Your task to perform on an android device: turn off location history Image 0: 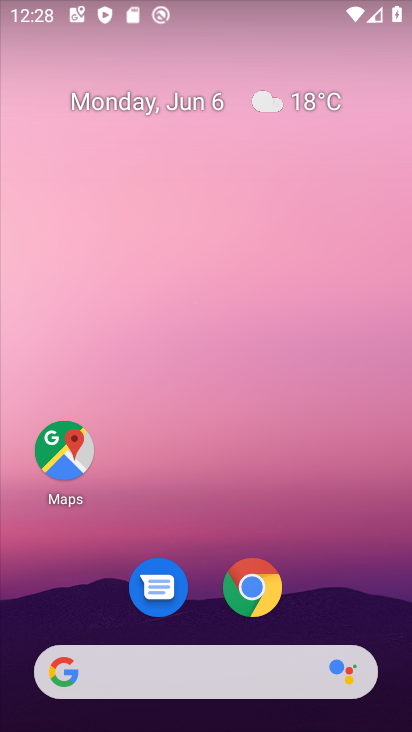
Step 0: press home button
Your task to perform on an android device: turn off location history Image 1: 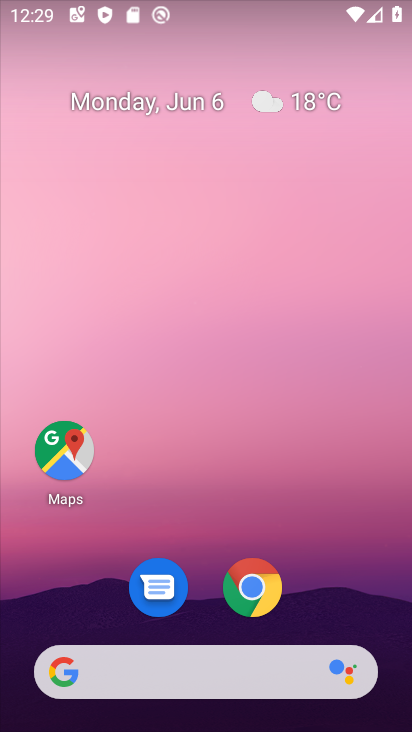
Step 1: drag from (356, 584) to (379, 119)
Your task to perform on an android device: turn off location history Image 2: 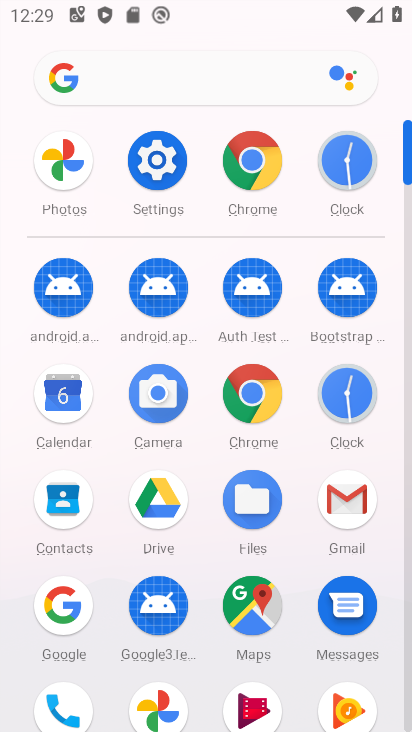
Step 2: click (163, 195)
Your task to perform on an android device: turn off location history Image 3: 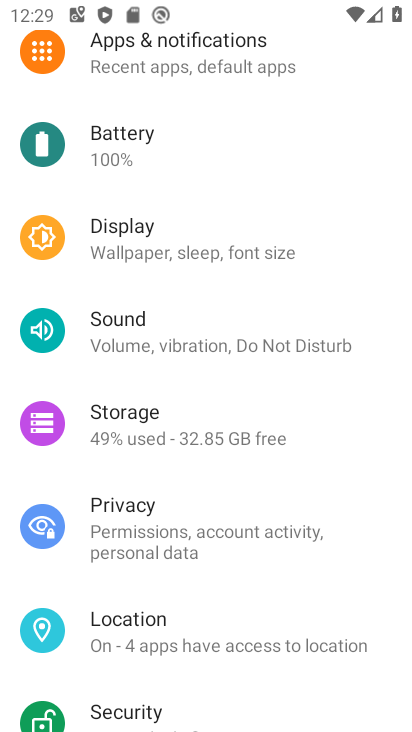
Step 3: drag from (263, 669) to (351, 365)
Your task to perform on an android device: turn off location history Image 4: 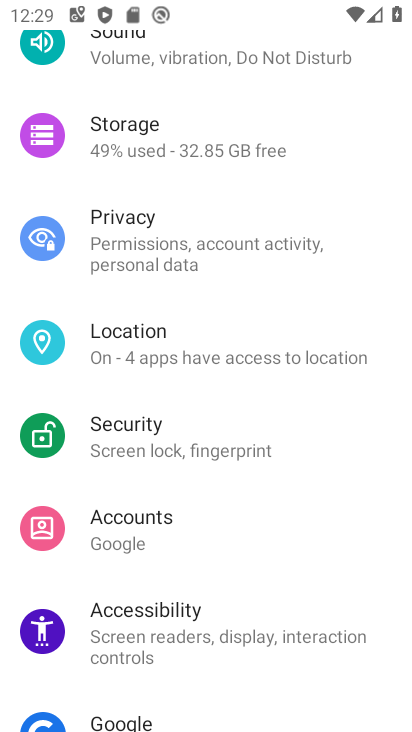
Step 4: click (258, 350)
Your task to perform on an android device: turn off location history Image 5: 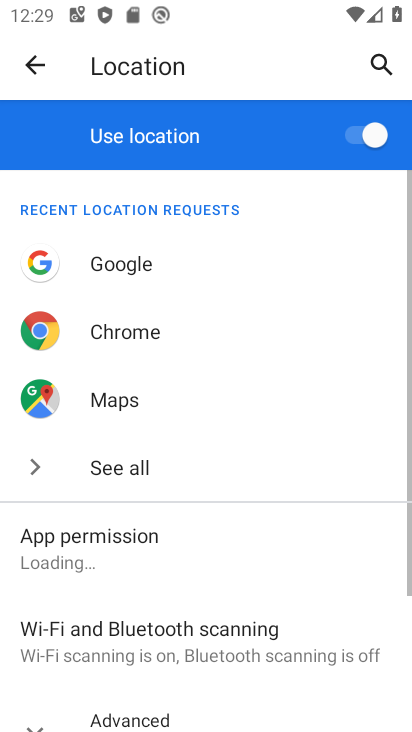
Step 5: drag from (257, 560) to (303, 262)
Your task to perform on an android device: turn off location history Image 6: 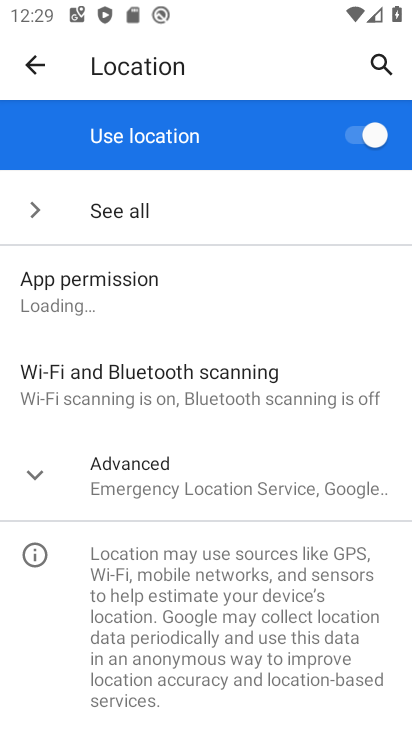
Step 6: click (217, 475)
Your task to perform on an android device: turn off location history Image 7: 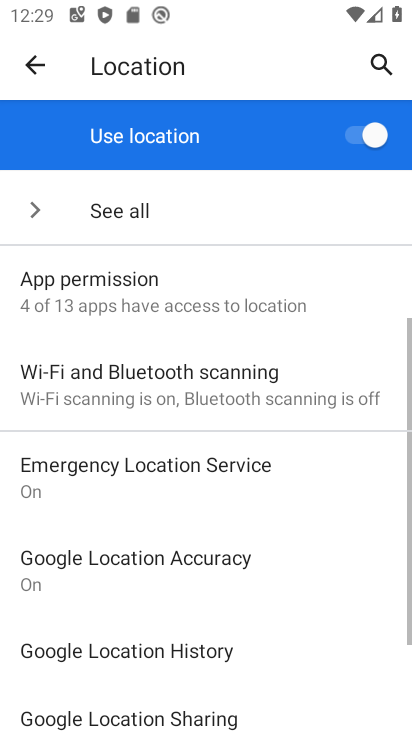
Step 7: drag from (206, 632) to (266, 388)
Your task to perform on an android device: turn off location history Image 8: 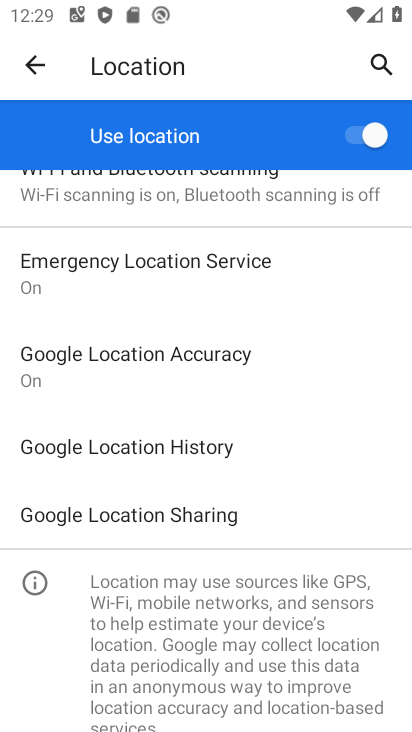
Step 8: click (163, 450)
Your task to perform on an android device: turn off location history Image 9: 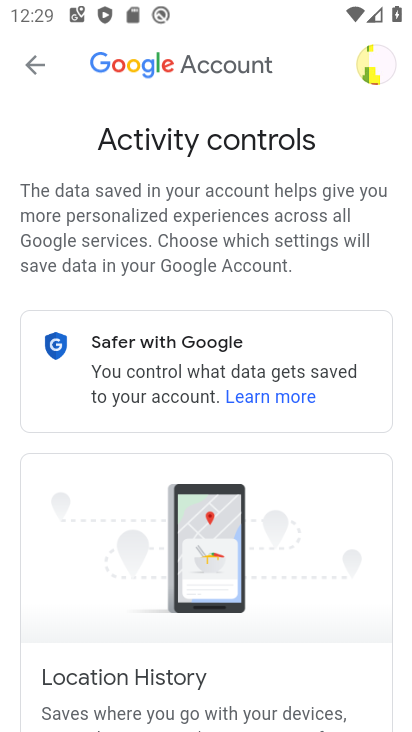
Step 9: drag from (110, 615) to (174, 235)
Your task to perform on an android device: turn off location history Image 10: 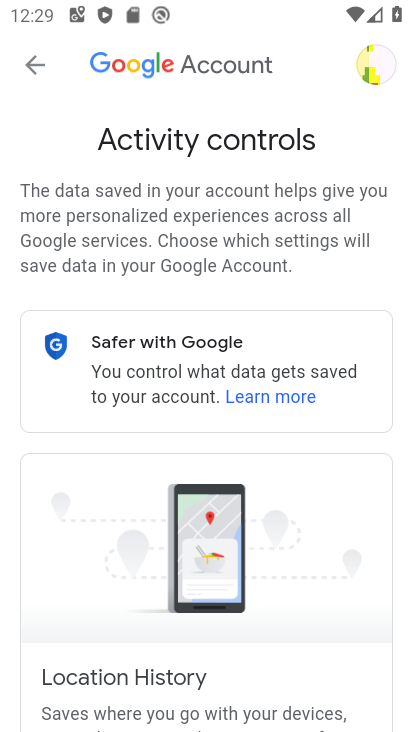
Step 10: drag from (119, 608) to (184, 263)
Your task to perform on an android device: turn off location history Image 11: 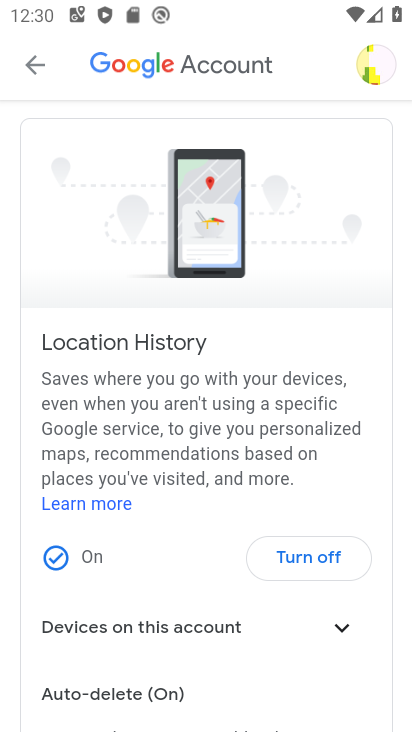
Step 11: click (315, 571)
Your task to perform on an android device: turn off location history Image 12: 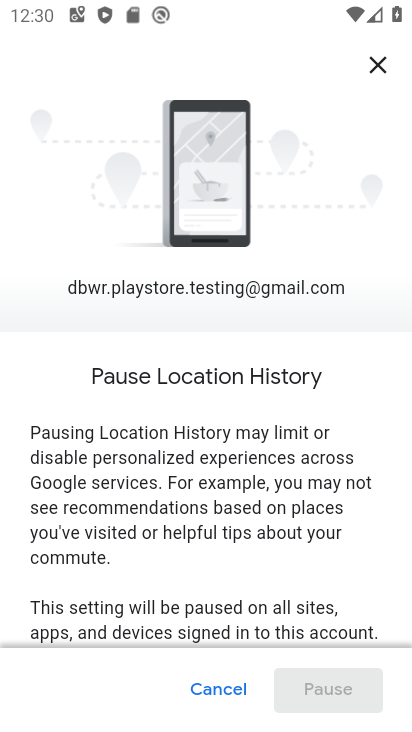
Step 12: drag from (234, 578) to (290, 189)
Your task to perform on an android device: turn off location history Image 13: 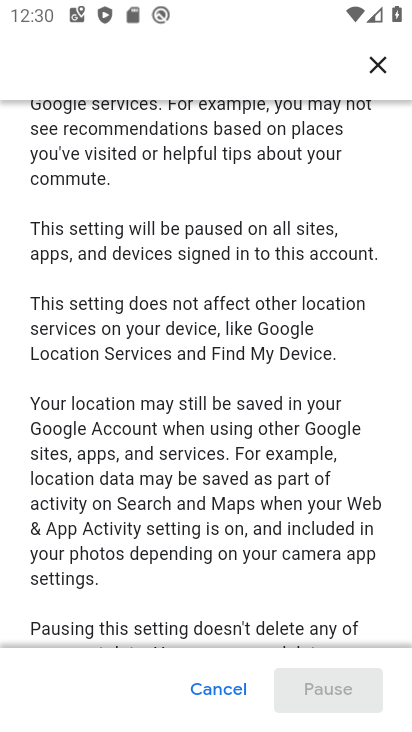
Step 13: drag from (279, 602) to (306, 246)
Your task to perform on an android device: turn off location history Image 14: 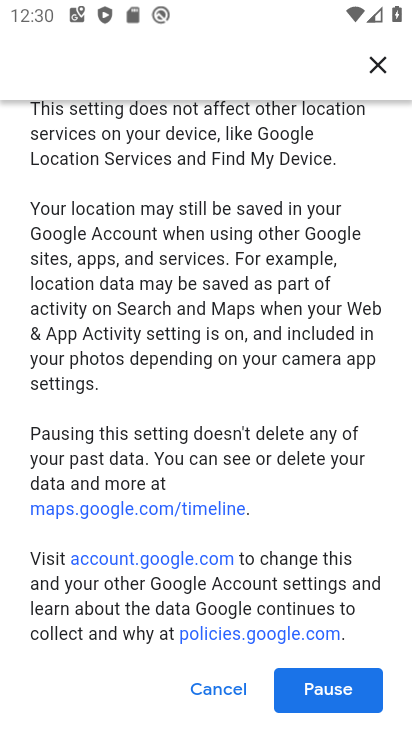
Step 14: drag from (262, 611) to (307, 349)
Your task to perform on an android device: turn off location history Image 15: 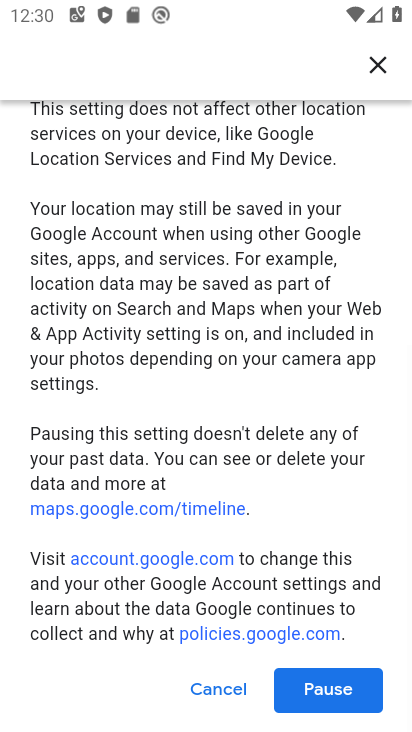
Step 15: click (319, 682)
Your task to perform on an android device: turn off location history Image 16: 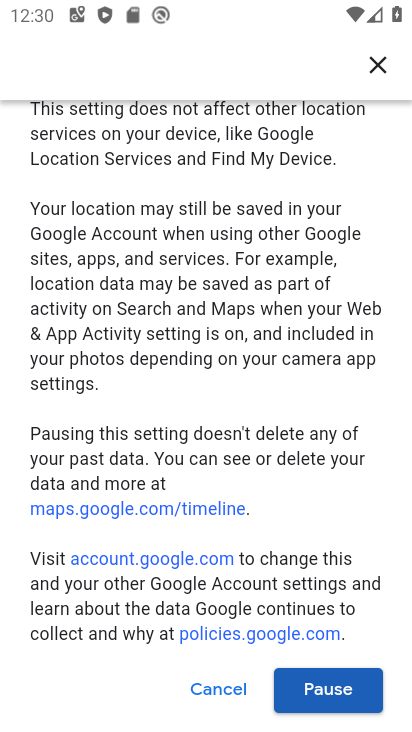
Step 16: click (354, 701)
Your task to perform on an android device: turn off location history Image 17: 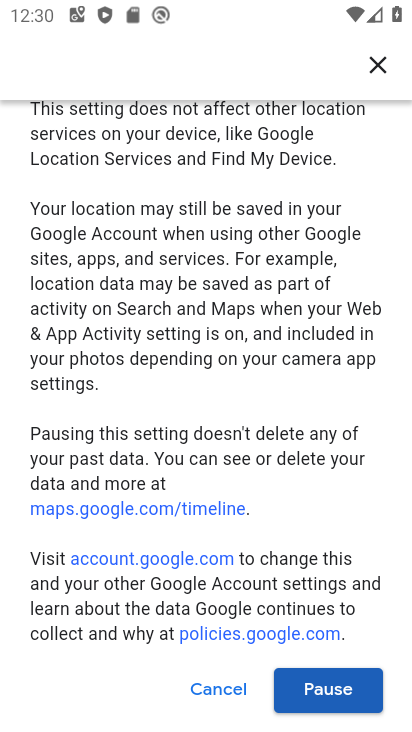
Step 17: click (358, 708)
Your task to perform on an android device: turn off location history Image 18: 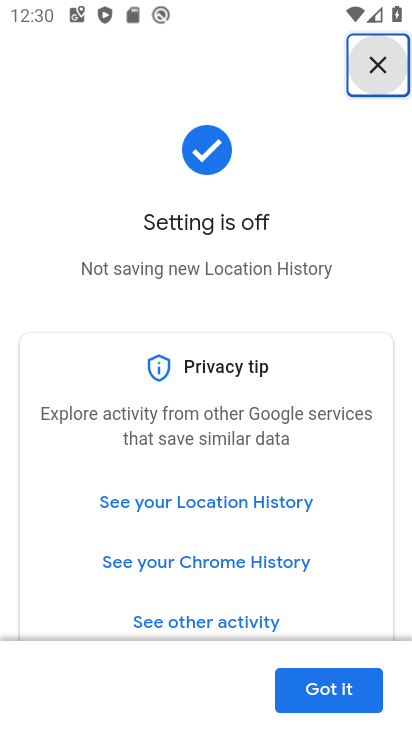
Step 18: task complete